Your task to perform on an android device: Go to eBay Image 0: 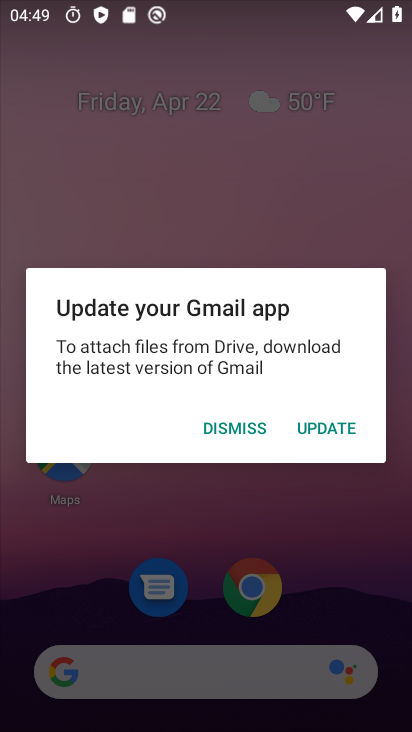
Step 0: press home button
Your task to perform on an android device: Go to eBay Image 1: 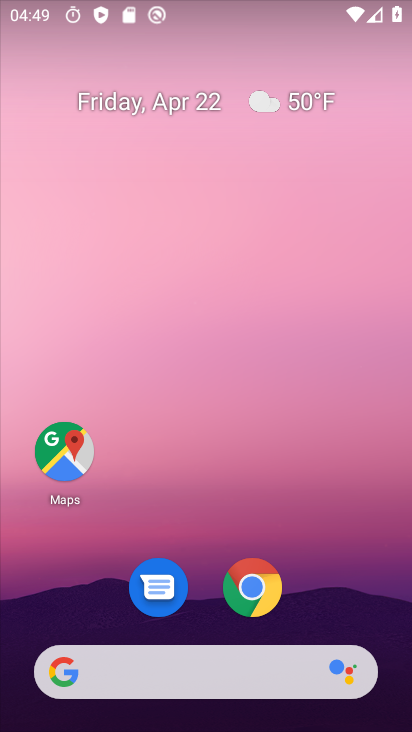
Step 1: click (247, 587)
Your task to perform on an android device: Go to eBay Image 2: 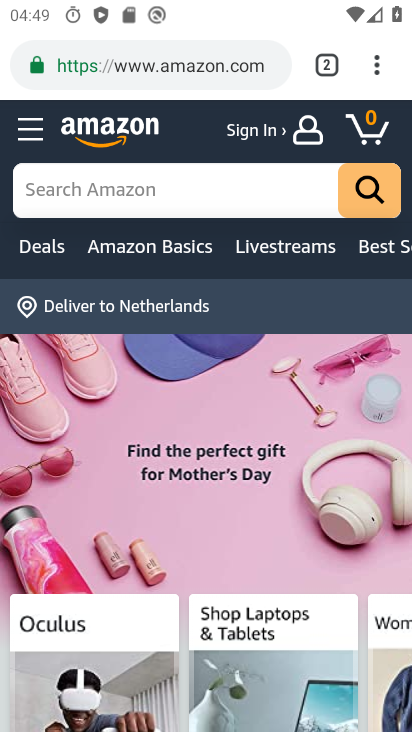
Step 2: click (158, 65)
Your task to perform on an android device: Go to eBay Image 3: 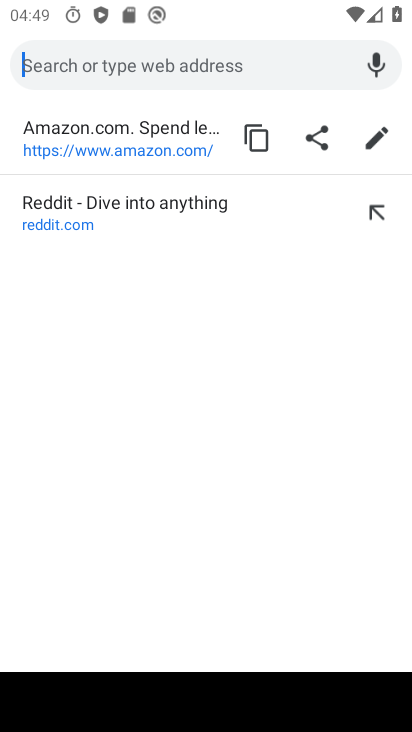
Step 3: type "ebay"
Your task to perform on an android device: Go to eBay Image 4: 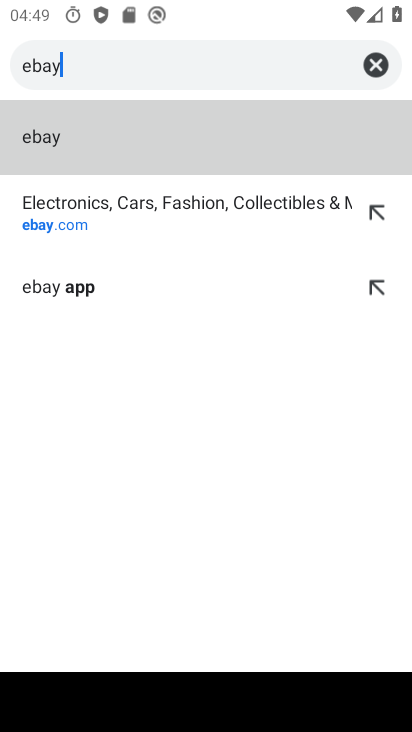
Step 4: click (53, 145)
Your task to perform on an android device: Go to eBay Image 5: 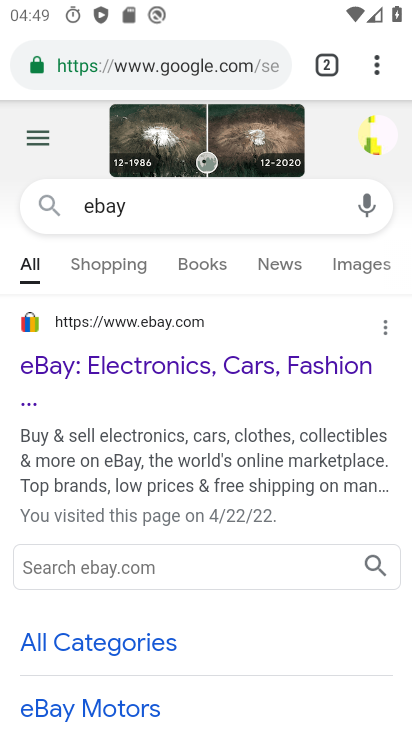
Step 5: click (19, 364)
Your task to perform on an android device: Go to eBay Image 6: 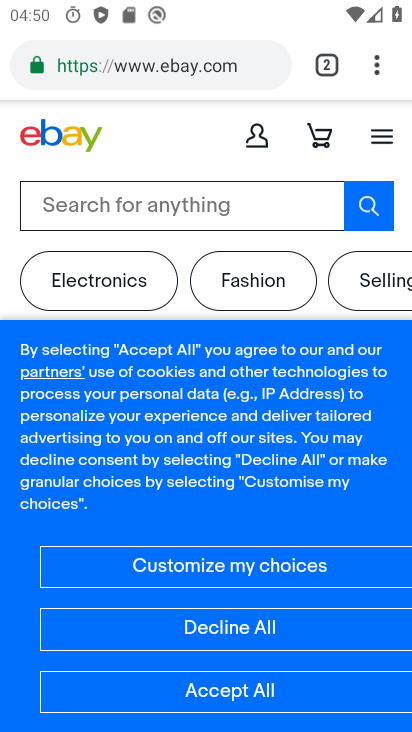
Step 6: task complete